Your task to perform on an android device: Go to sound settings Image 0: 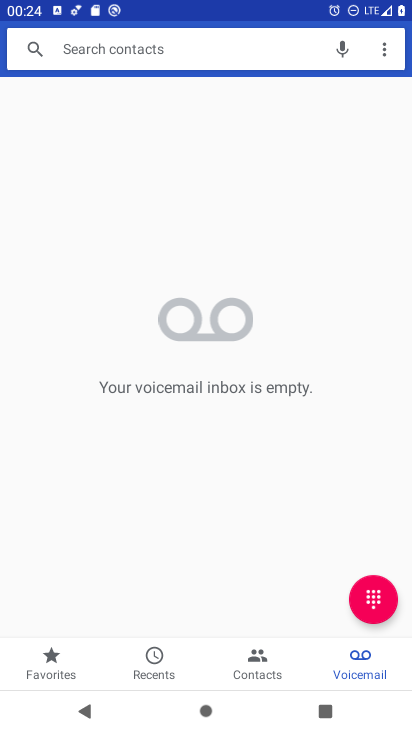
Step 0: press home button
Your task to perform on an android device: Go to sound settings Image 1: 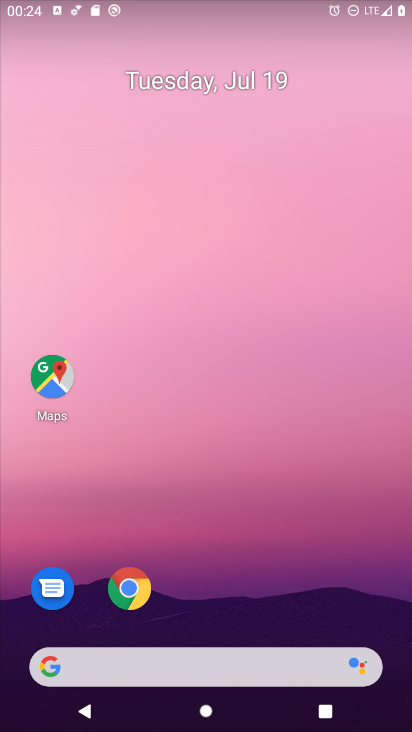
Step 1: drag from (385, 629) to (333, 45)
Your task to perform on an android device: Go to sound settings Image 2: 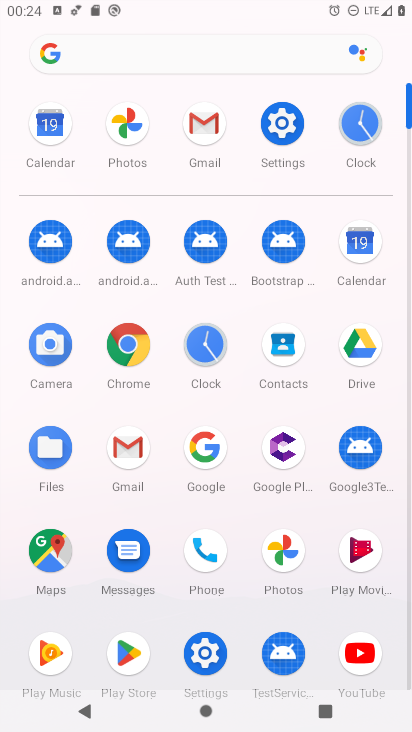
Step 2: click (206, 655)
Your task to perform on an android device: Go to sound settings Image 3: 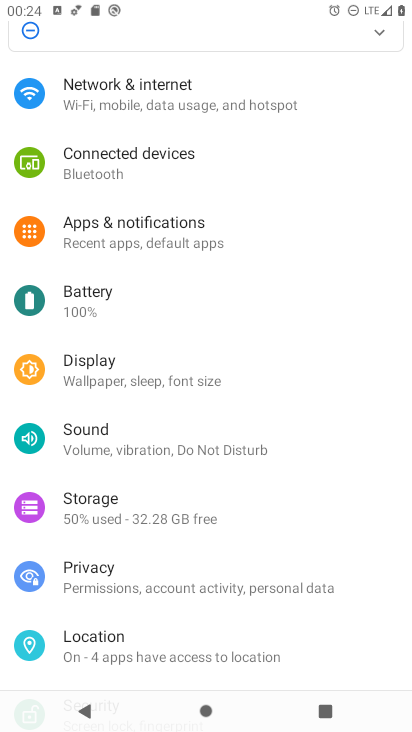
Step 3: click (95, 436)
Your task to perform on an android device: Go to sound settings Image 4: 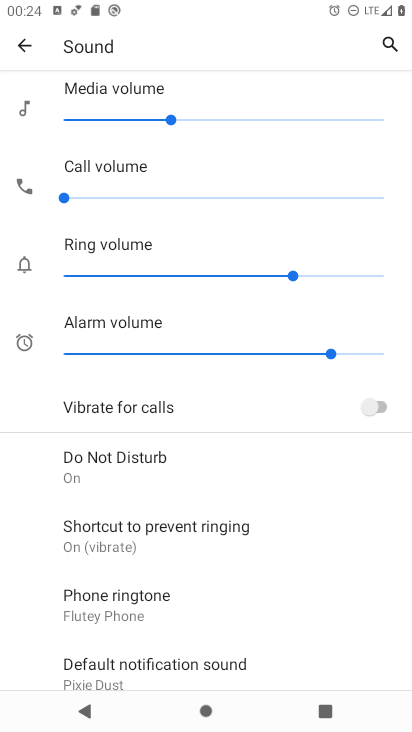
Step 4: task complete